Your task to perform on an android device: Open Youtube and go to the subscriptions tab Image 0: 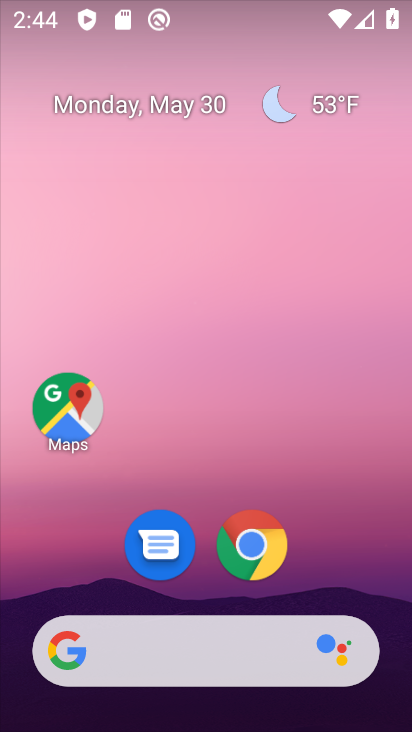
Step 0: drag from (174, 591) to (259, 10)
Your task to perform on an android device: Open Youtube and go to the subscriptions tab Image 1: 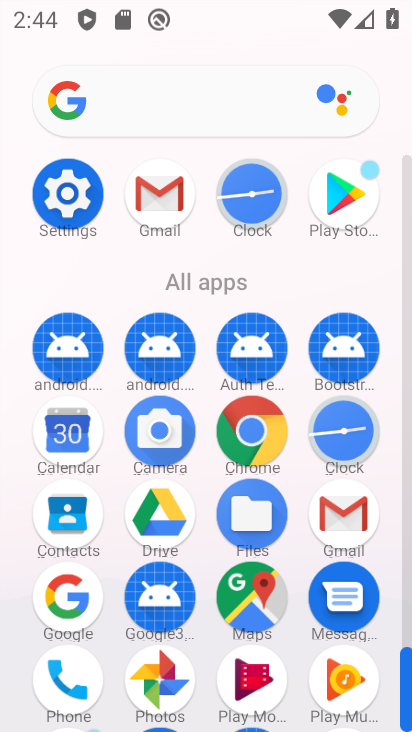
Step 1: drag from (212, 644) to (193, 64)
Your task to perform on an android device: Open Youtube and go to the subscriptions tab Image 2: 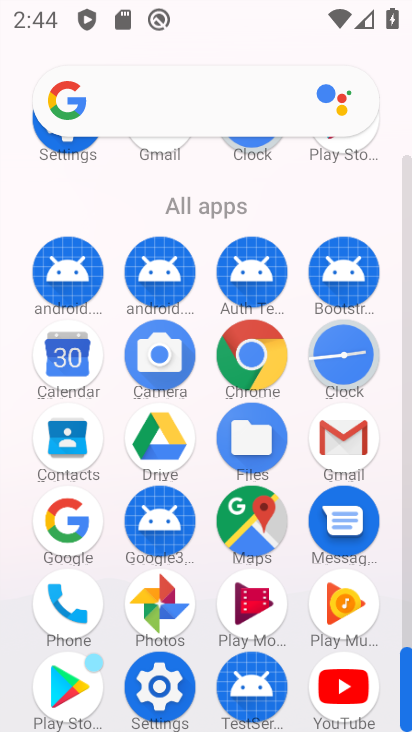
Step 2: click (332, 678)
Your task to perform on an android device: Open Youtube and go to the subscriptions tab Image 3: 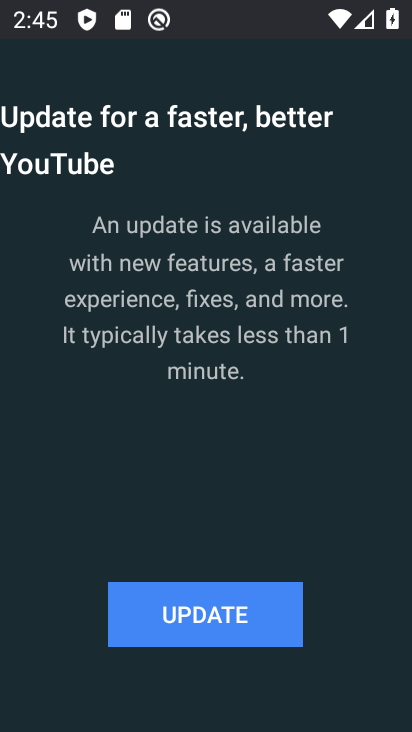
Step 3: click (169, 618)
Your task to perform on an android device: Open Youtube and go to the subscriptions tab Image 4: 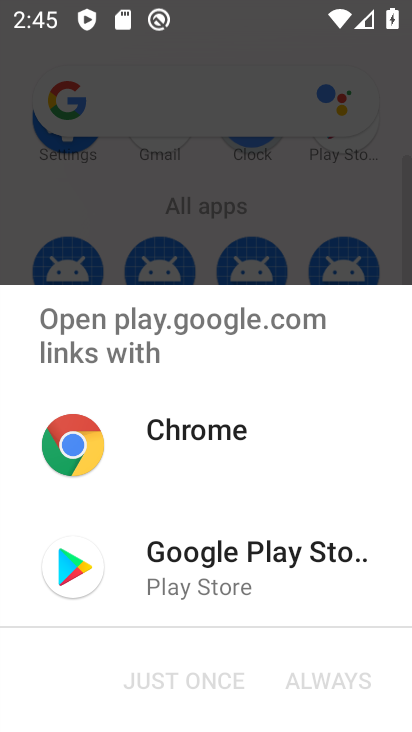
Step 4: click (177, 687)
Your task to perform on an android device: Open Youtube and go to the subscriptions tab Image 5: 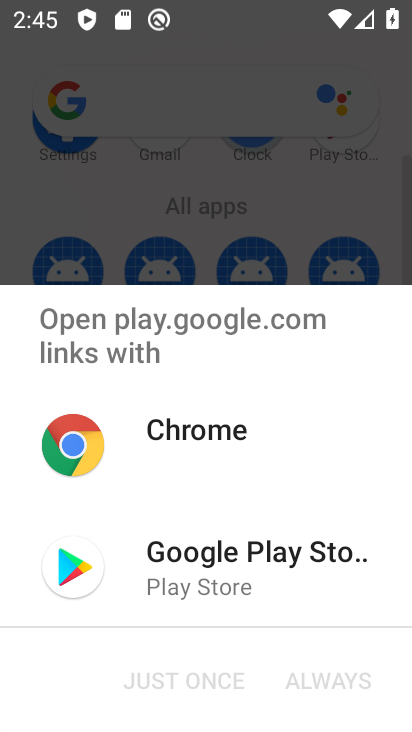
Step 5: click (237, 566)
Your task to perform on an android device: Open Youtube and go to the subscriptions tab Image 6: 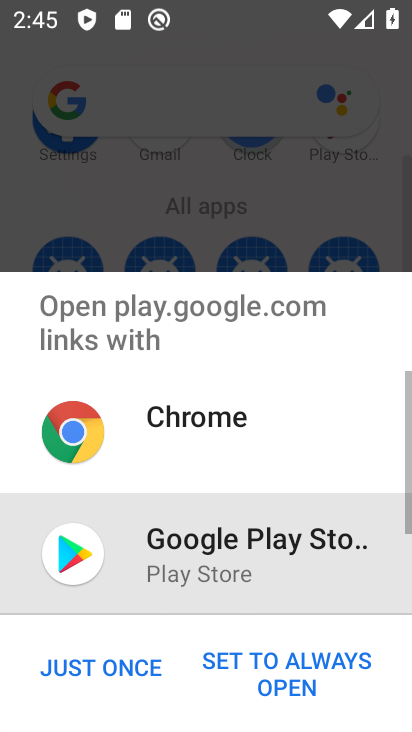
Step 6: click (148, 671)
Your task to perform on an android device: Open Youtube and go to the subscriptions tab Image 7: 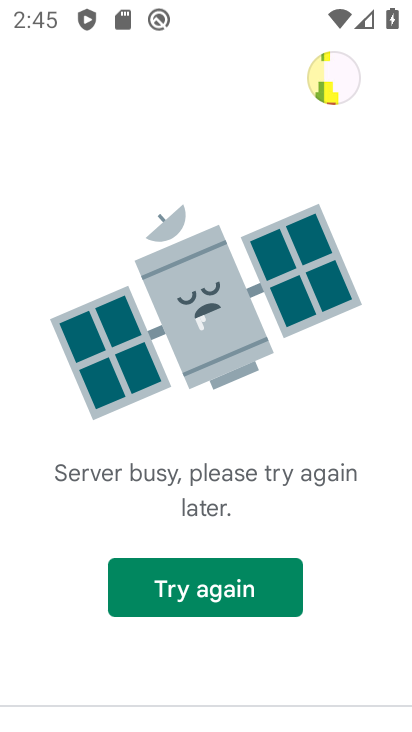
Step 7: click (268, 586)
Your task to perform on an android device: Open Youtube and go to the subscriptions tab Image 8: 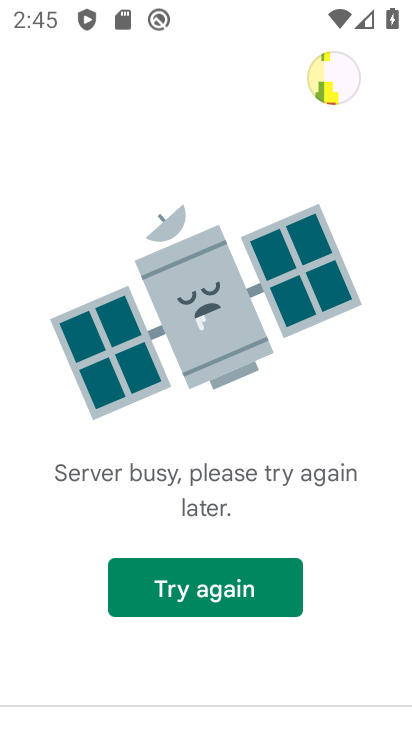
Step 8: task complete